Your task to perform on an android device: check storage Image 0: 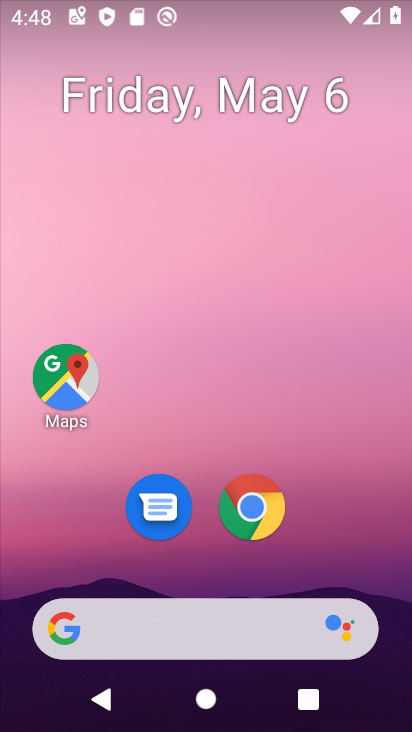
Step 0: click (331, 530)
Your task to perform on an android device: check storage Image 1: 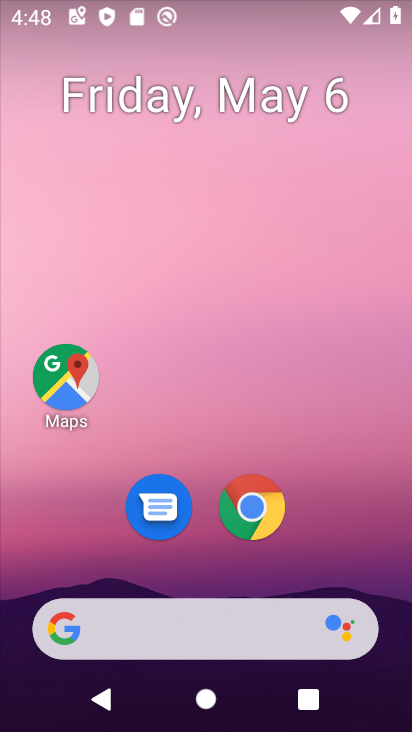
Step 1: drag from (331, 530) to (156, 89)
Your task to perform on an android device: check storage Image 2: 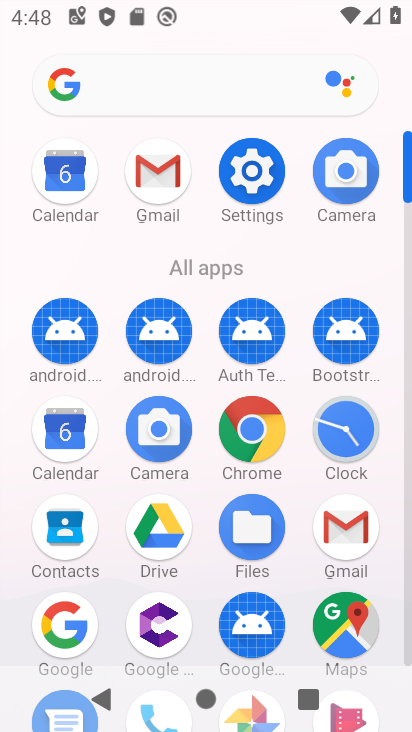
Step 2: click (249, 179)
Your task to perform on an android device: check storage Image 3: 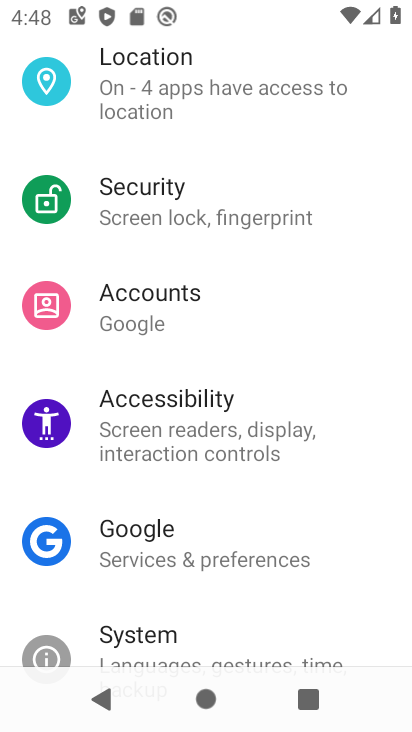
Step 3: drag from (303, 261) to (321, 568)
Your task to perform on an android device: check storage Image 4: 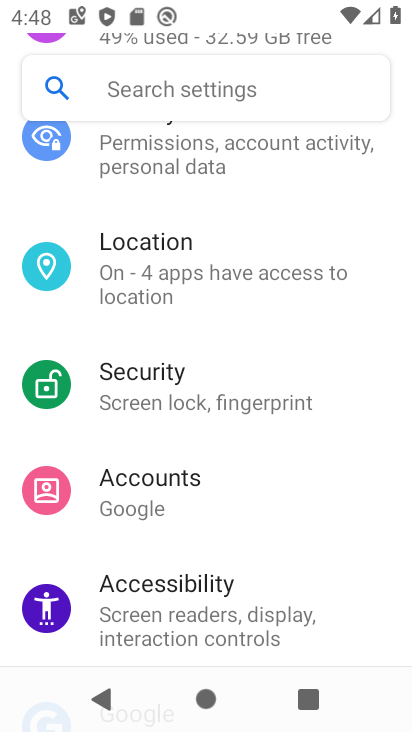
Step 4: drag from (270, 214) to (226, 588)
Your task to perform on an android device: check storage Image 5: 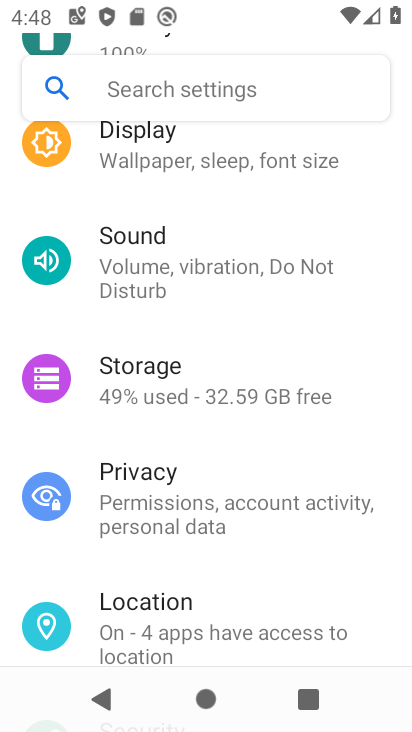
Step 5: click (143, 372)
Your task to perform on an android device: check storage Image 6: 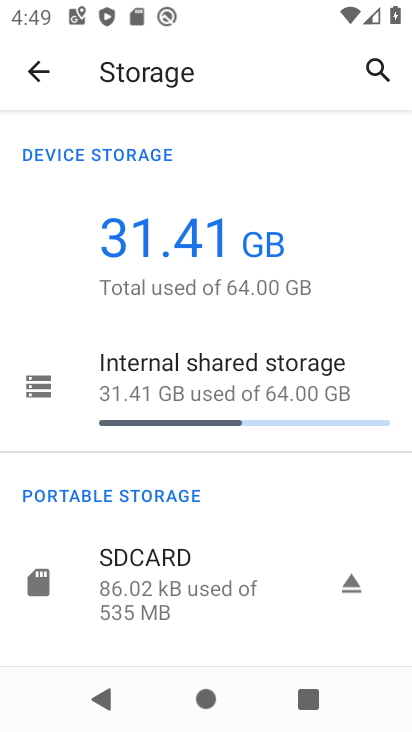
Step 6: task complete